Your task to perform on an android device: Open battery settings Image 0: 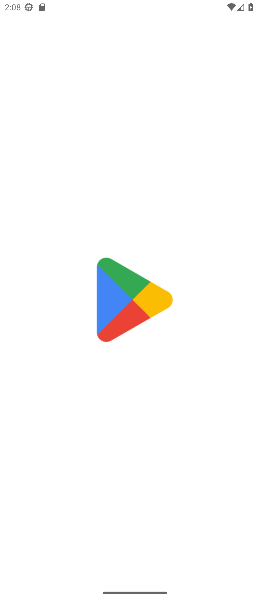
Step 0: press home button
Your task to perform on an android device: Open battery settings Image 1: 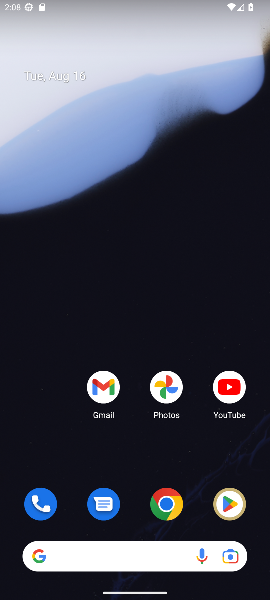
Step 1: drag from (135, 484) to (166, 5)
Your task to perform on an android device: Open battery settings Image 2: 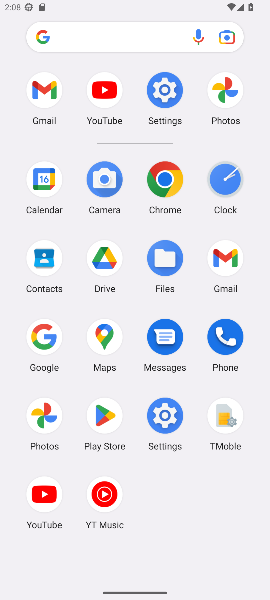
Step 2: click (166, 92)
Your task to perform on an android device: Open battery settings Image 3: 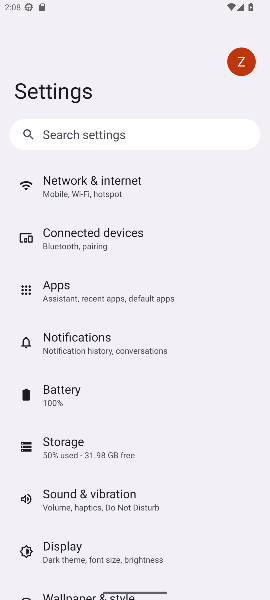
Step 3: click (70, 387)
Your task to perform on an android device: Open battery settings Image 4: 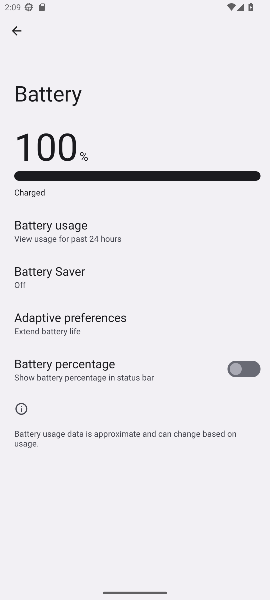
Step 4: task complete